Your task to perform on an android device: toggle wifi Image 0: 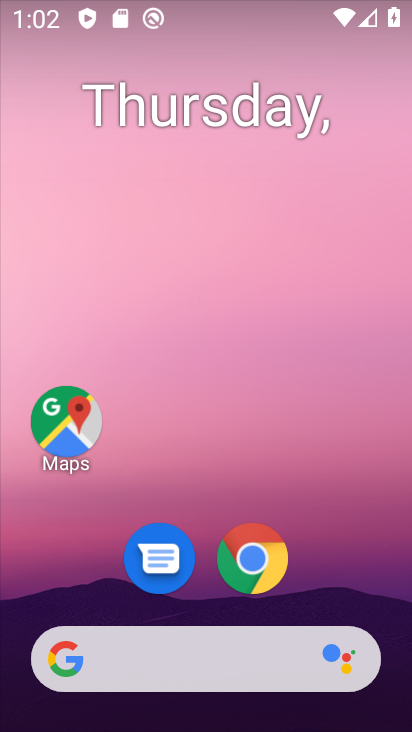
Step 0: drag from (299, 10) to (269, 541)
Your task to perform on an android device: toggle wifi Image 1: 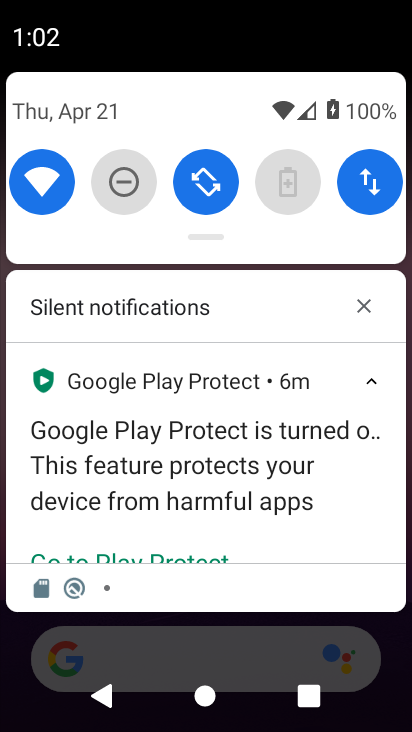
Step 1: click (56, 171)
Your task to perform on an android device: toggle wifi Image 2: 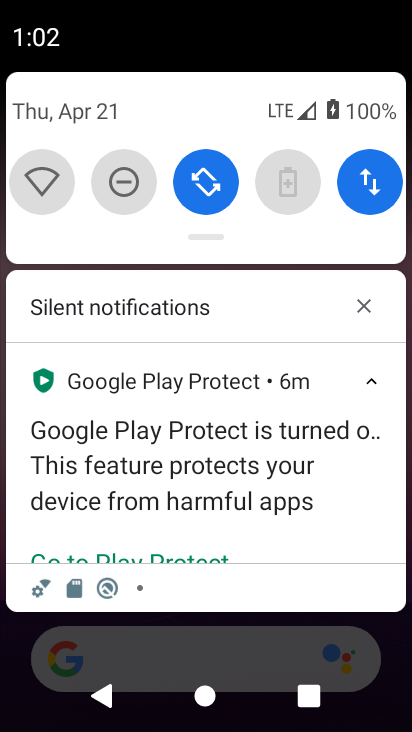
Step 2: task complete